Your task to perform on an android device: turn on airplane mode Image 0: 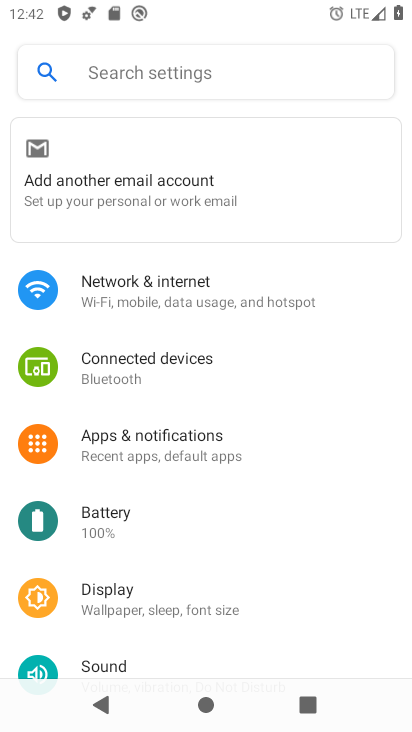
Step 0: drag from (348, 8) to (307, 563)
Your task to perform on an android device: turn on airplane mode Image 1: 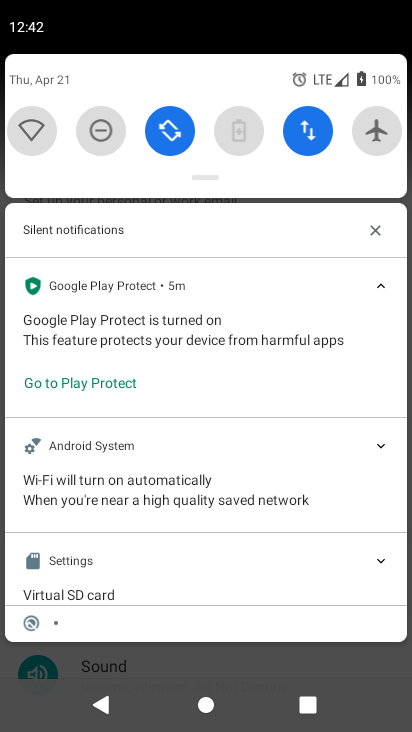
Step 1: click (367, 123)
Your task to perform on an android device: turn on airplane mode Image 2: 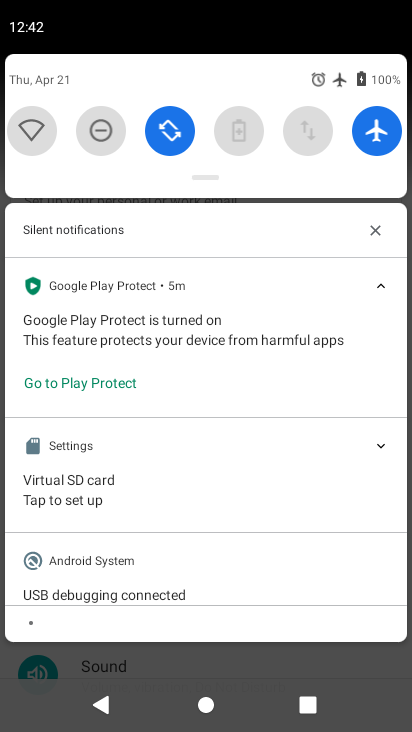
Step 2: task complete